Your task to perform on an android device: Open privacy settings Image 0: 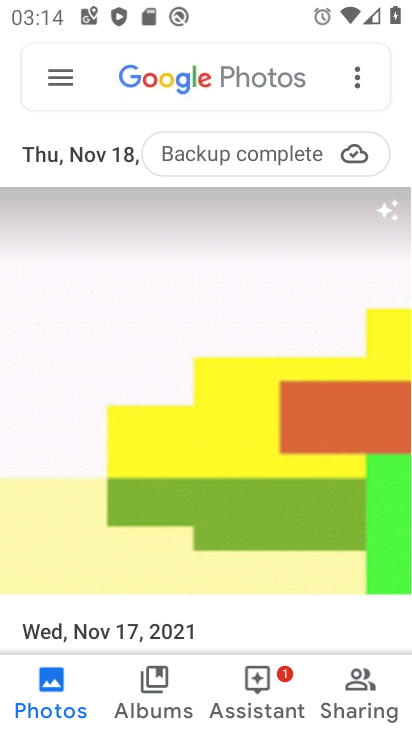
Step 0: press home button
Your task to perform on an android device: Open privacy settings Image 1: 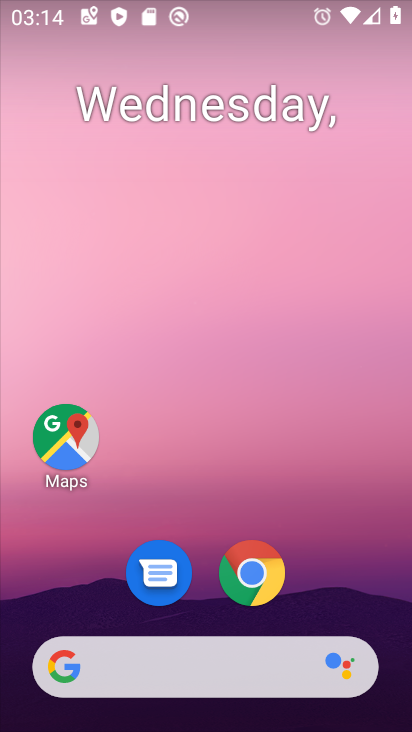
Step 1: drag from (190, 717) to (206, 398)
Your task to perform on an android device: Open privacy settings Image 2: 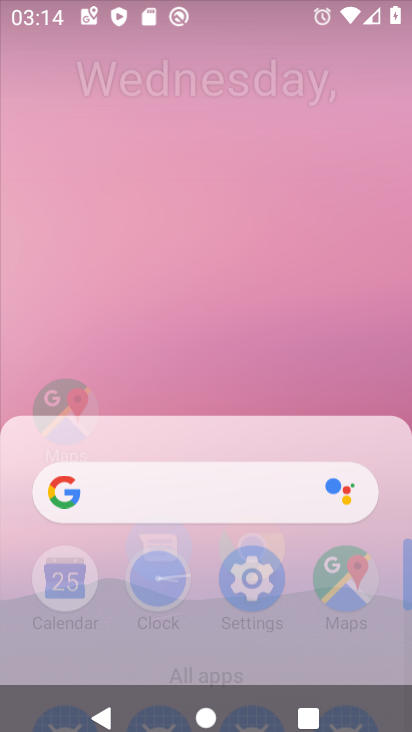
Step 2: click (203, 251)
Your task to perform on an android device: Open privacy settings Image 3: 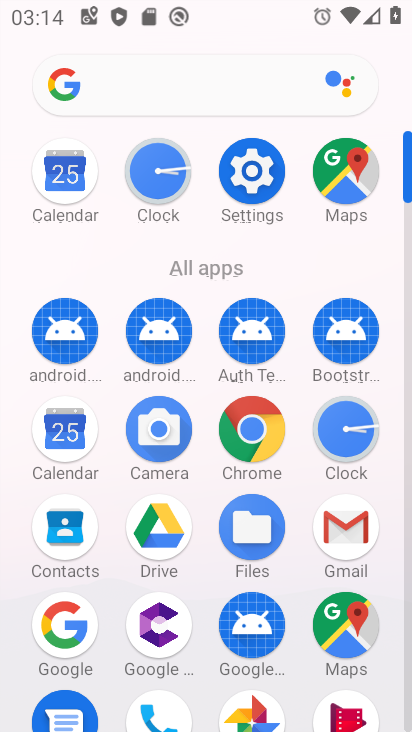
Step 3: click (250, 172)
Your task to perform on an android device: Open privacy settings Image 4: 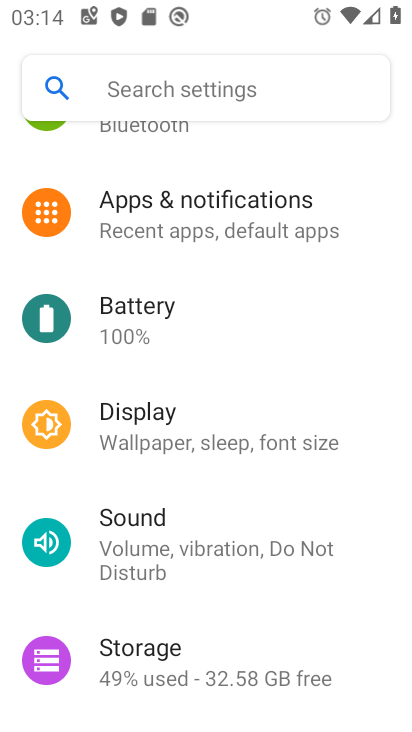
Step 4: drag from (158, 646) to (160, 284)
Your task to perform on an android device: Open privacy settings Image 5: 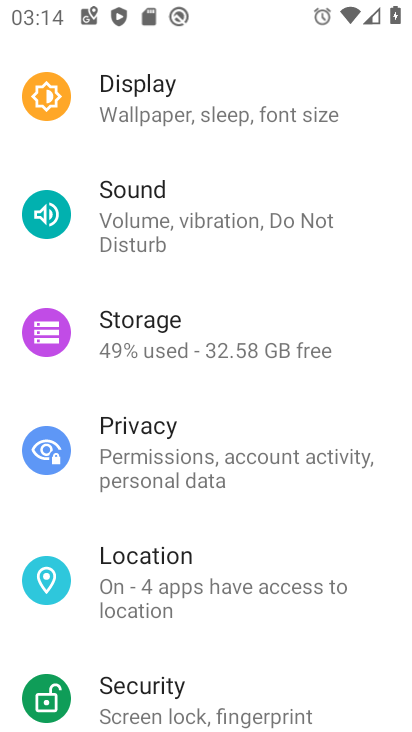
Step 5: click (148, 464)
Your task to perform on an android device: Open privacy settings Image 6: 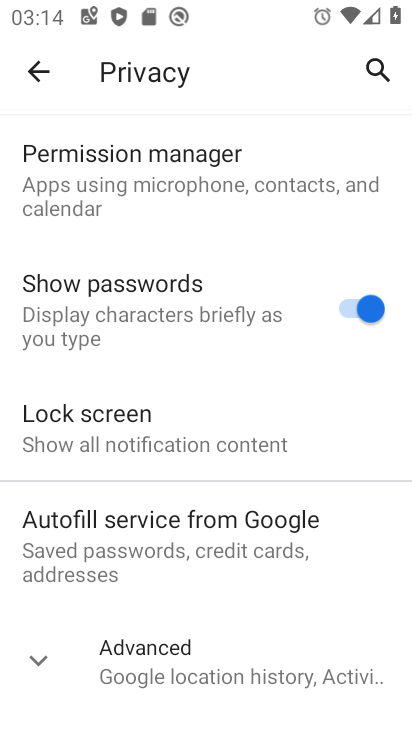
Step 6: task complete